Your task to perform on an android device: install app "Move to iOS" Image 0: 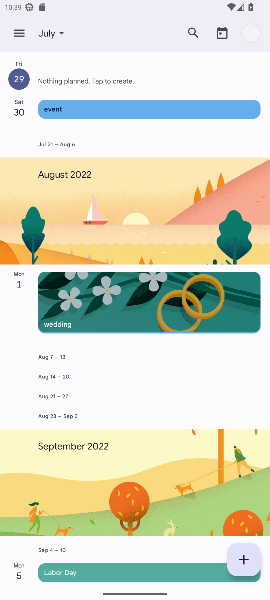
Step 0: press home button
Your task to perform on an android device: install app "Move to iOS" Image 1: 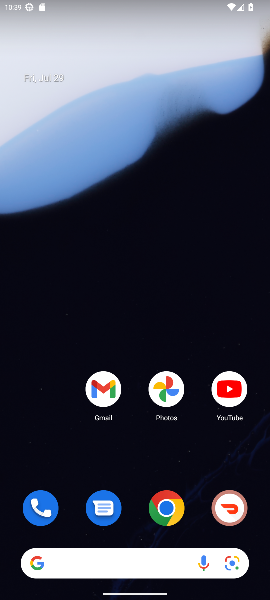
Step 1: drag from (153, 562) to (179, 55)
Your task to perform on an android device: install app "Move to iOS" Image 2: 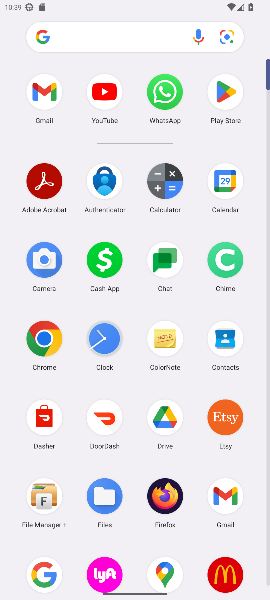
Step 2: click (227, 86)
Your task to perform on an android device: install app "Move to iOS" Image 3: 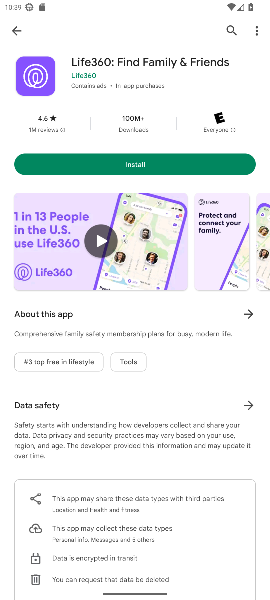
Step 3: click (228, 23)
Your task to perform on an android device: install app "Move to iOS" Image 4: 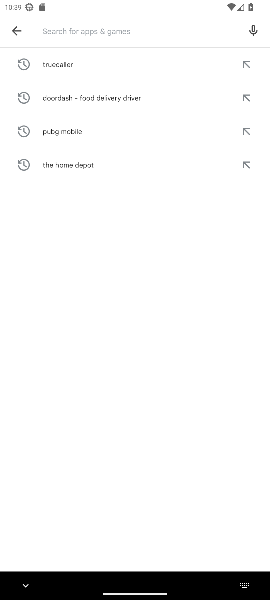
Step 4: type "move to ios"
Your task to perform on an android device: install app "Move to iOS" Image 5: 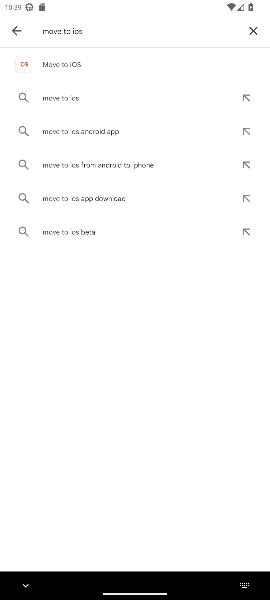
Step 5: click (74, 58)
Your task to perform on an android device: install app "Move to iOS" Image 6: 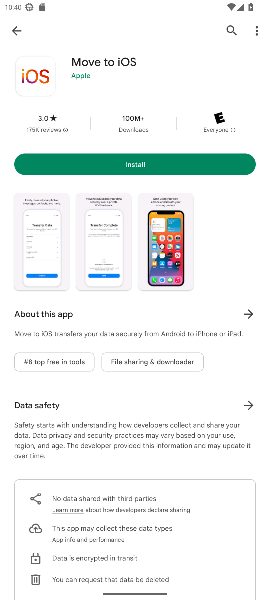
Step 6: click (137, 165)
Your task to perform on an android device: install app "Move to iOS" Image 7: 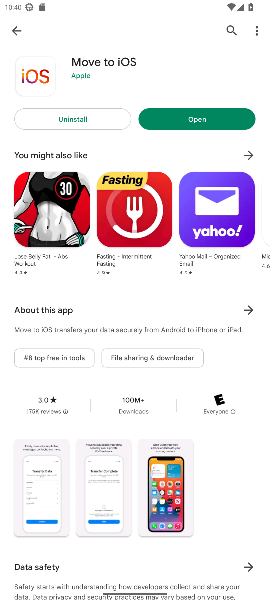
Step 7: task complete